Your task to perform on an android device: find which apps use the phone's location Image 0: 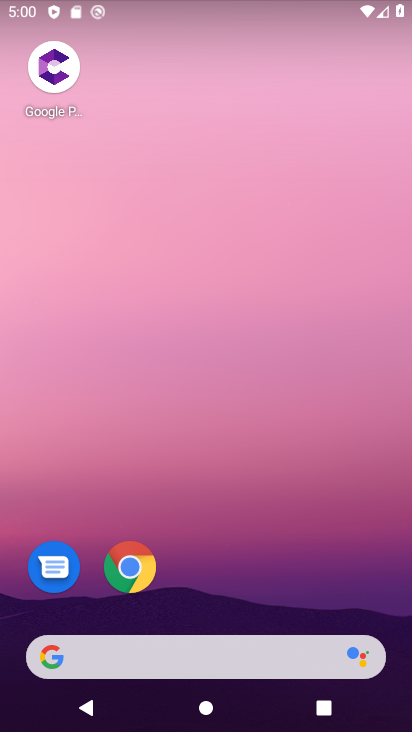
Step 0: drag from (286, 458) to (251, 6)
Your task to perform on an android device: find which apps use the phone's location Image 1: 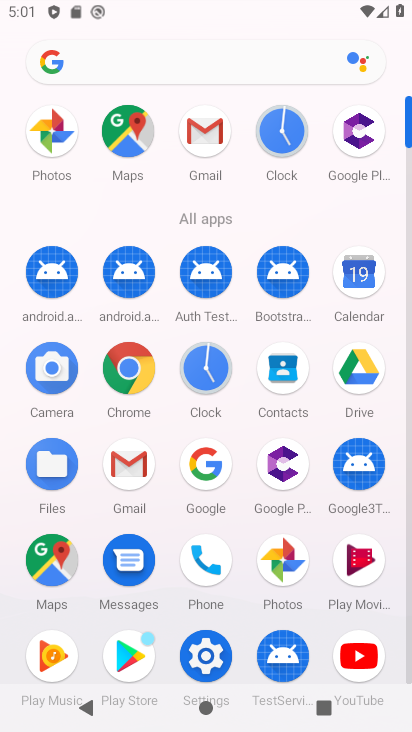
Step 1: drag from (6, 529) to (8, 222)
Your task to perform on an android device: find which apps use the phone's location Image 2: 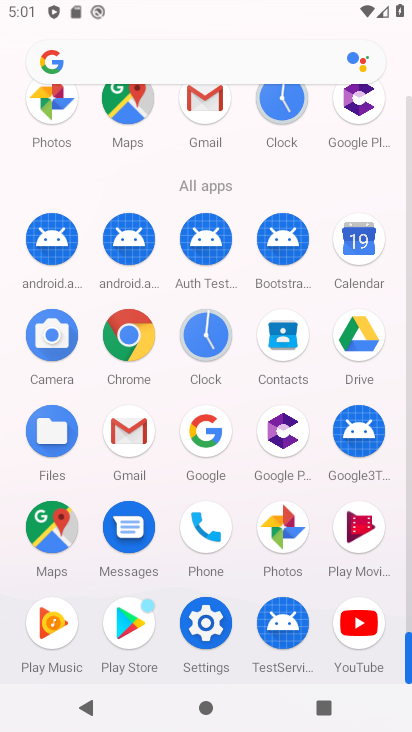
Step 2: click (205, 621)
Your task to perform on an android device: find which apps use the phone's location Image 3: 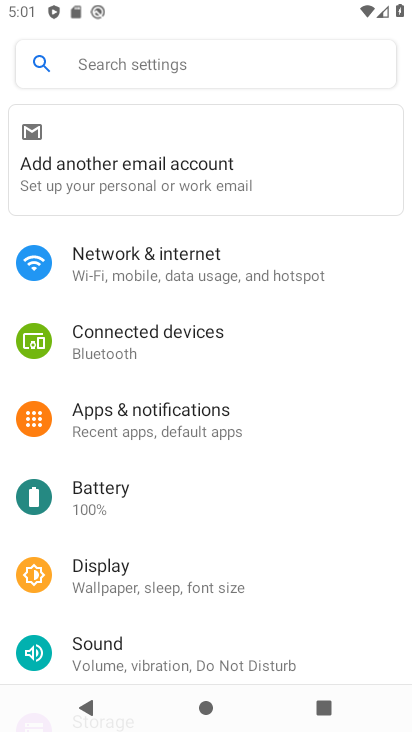
Step 3: drag from (303, 489) to (306, 158)
Your task to perform on an android device: find which apps use the phone's location Image 4: 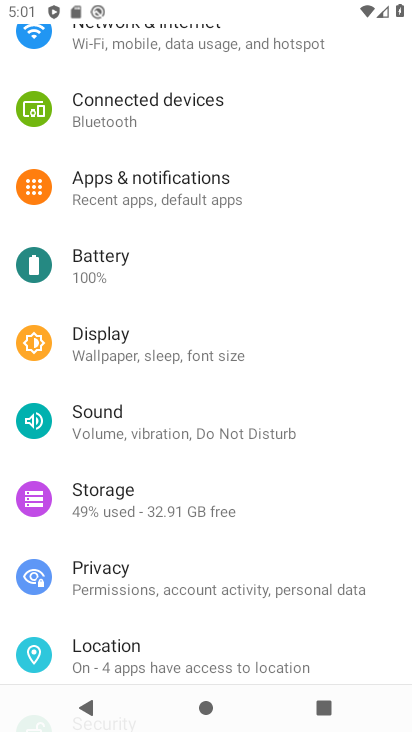
Step 4: click (154, 637)
Your task to perform on an android device: find which apps use the phone's location Image 5: 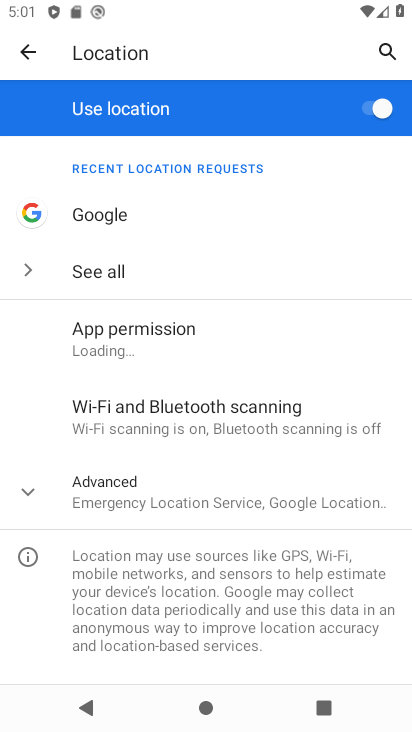
Step 5: click (205, 507)
Your task to perform on an android device: find which apps use the phone's location Image 6: 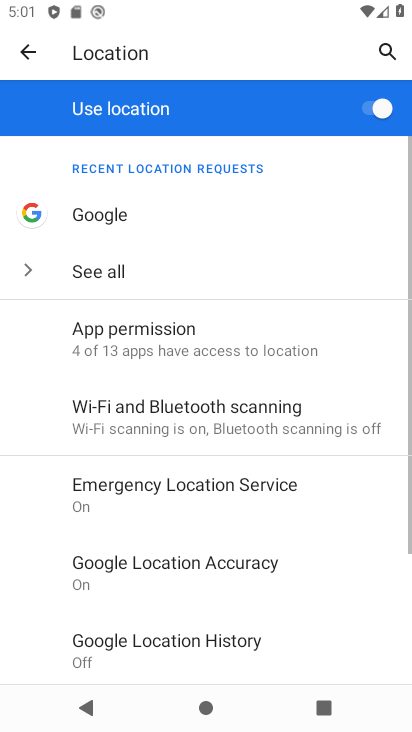
Step 6: drag from (233, 563) to (247, 200)
Your task to perform on an android device: find which apps use the phone's location Image 7: 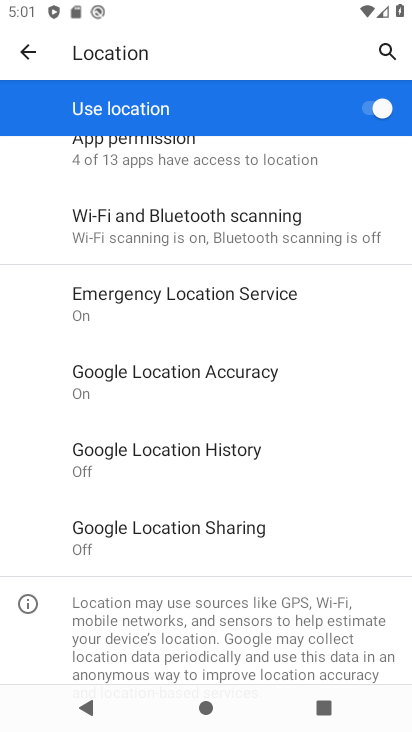
Step 7: drag from (303, 205) to (277, 472)
Your task to perform on an android device: find which apps use the phone's location Image 8: 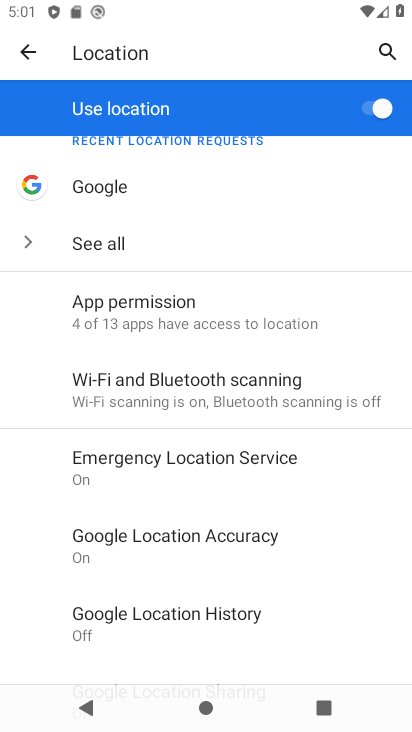
Step 8: drag from (289, 578) to (267, 266)
Your task to perform on an android device: find which apps use the phone's location Image 9: 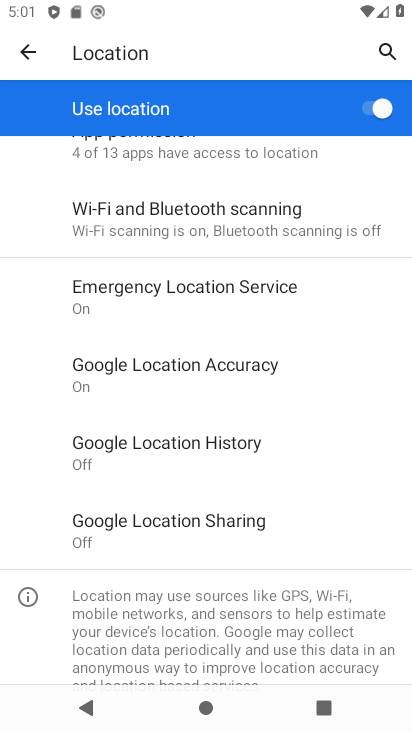
Step 9: drag from (304, 333) to (306, 634)
Your task to perform on an android device: find which apps use the phone's location Image 10: 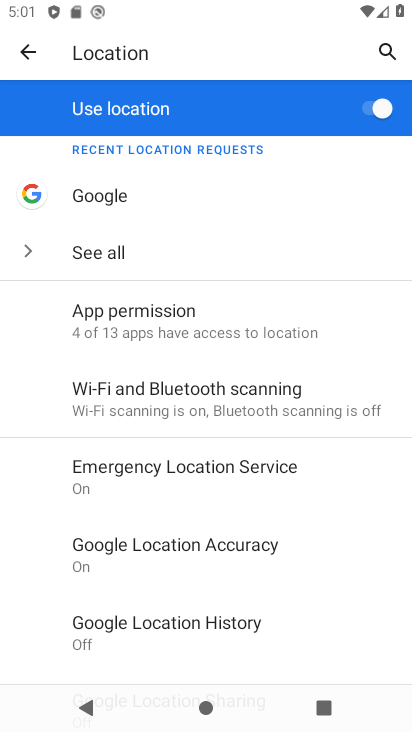
Step 10: click (209, 309)
Your task to perform on an android device: find which apps use the phone's location Image 11: 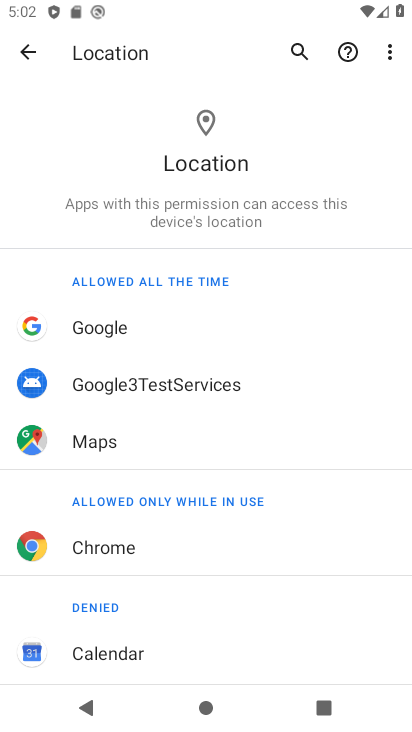
Step 11: task complete